Your task to perform on an android device: Open network settings Image 0: 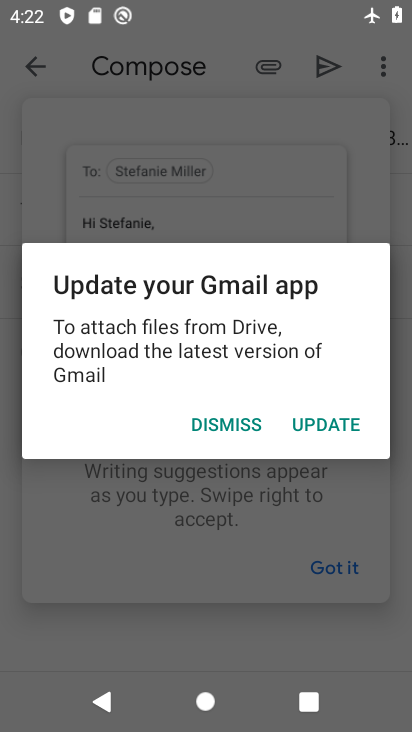
Step 0: press home button
Your task to perform on an android device: Open network settings Image 1: 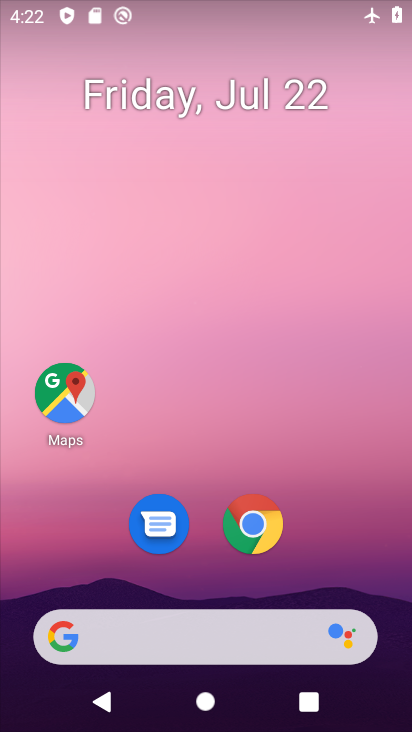
Step 1: drag from (338, 549) to (362, 104)
Your task to perform on an android device: Open network settings Image 2: 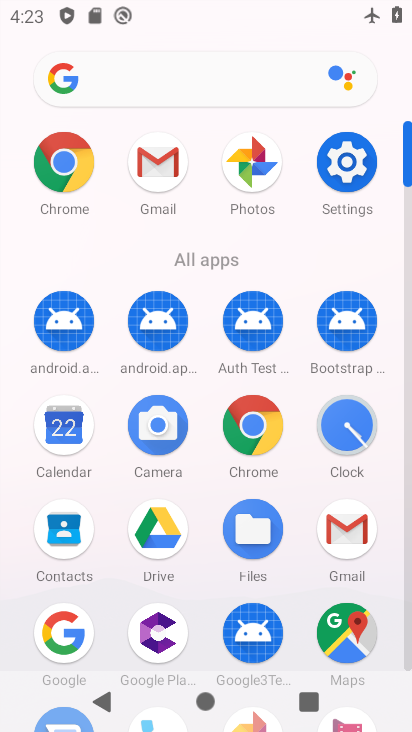
Step 2: click (356, 173)
Your task to perform on an android device: Open network settings Image 3: 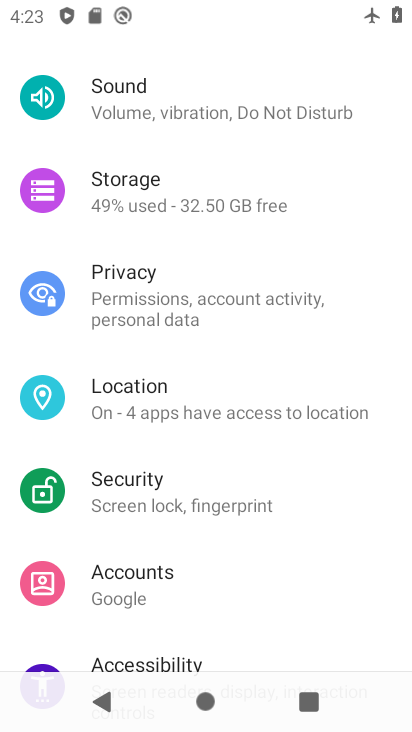
Step 3: drag from (279, 236) to (290, 580)
Your task to perform on an android device: Open network settings Image 4: 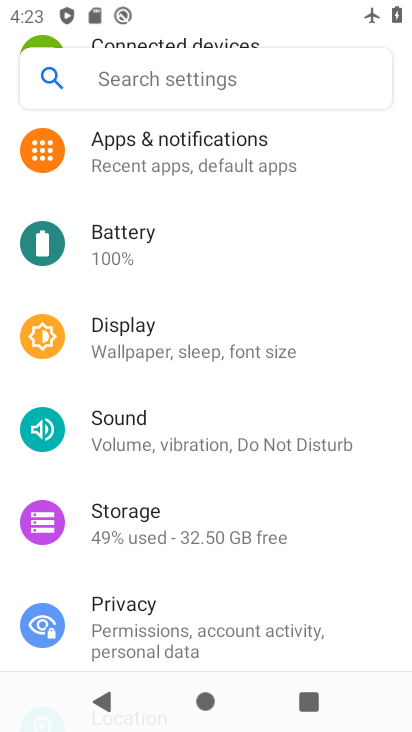
Step 4: drag from (221, 199) to (245, 488)
Your task to perform on an android device: Open network settings Image 5: 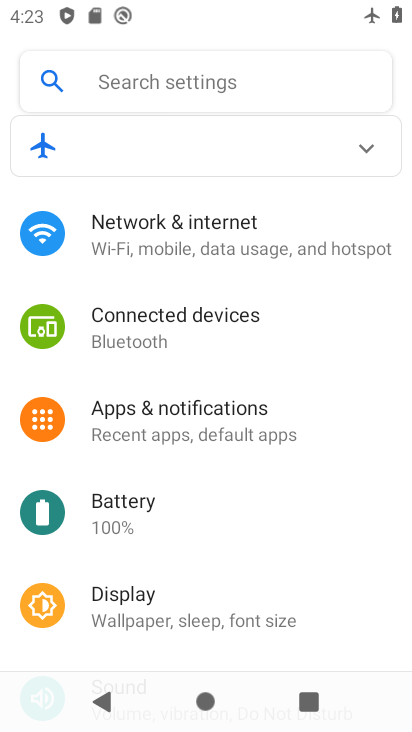
Step 5: click (243, 227)
Your task to perform on an android device: Open network settings Image 6: 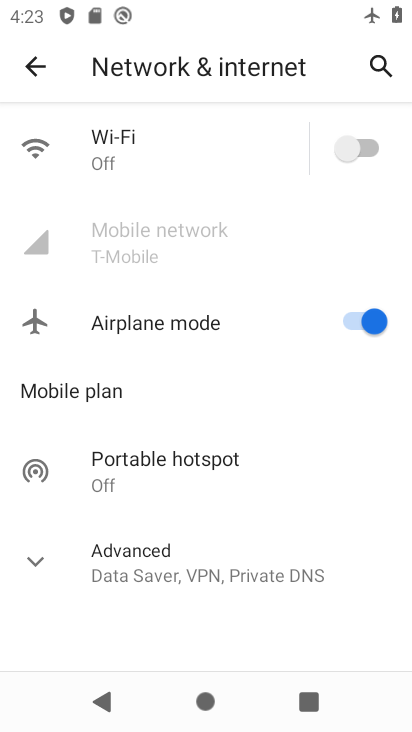
Step 6: task complete